Your task to perform on an android device: toggle data saver in the chrome app Image 0: 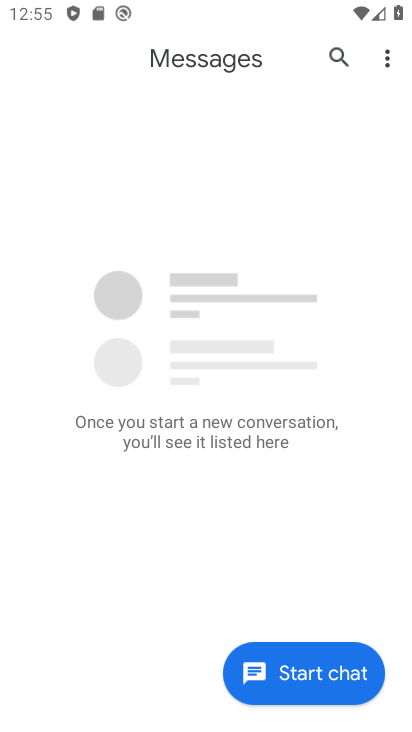
Step 0: press home button
Your task to perform on an android device: toggle data saver in the chrome app Image 1: 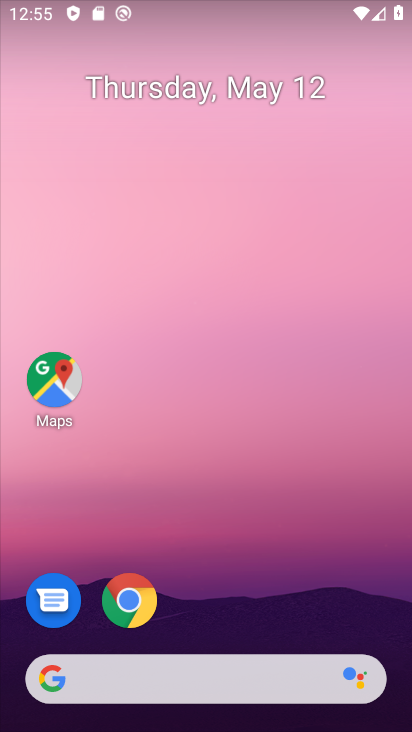
Step 1: click (134, 615)
Your task to perform on an android device: toggle data saver in the chrome app Image 2: 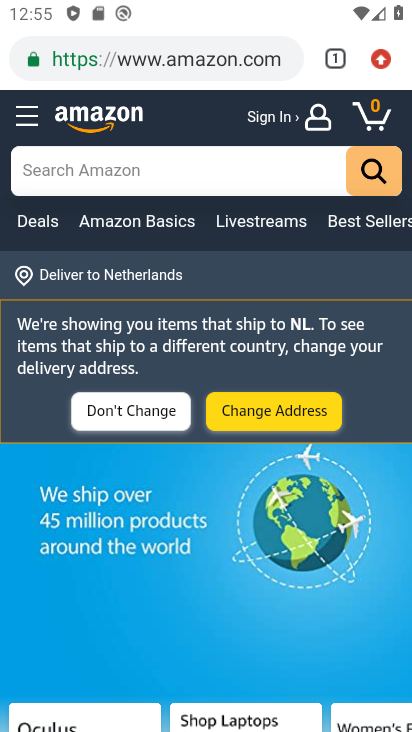
Step 2: drag from (383, 67) to (257, 638)
Your task to perform on an android device: toggle data saver in the chrome app Image 3: 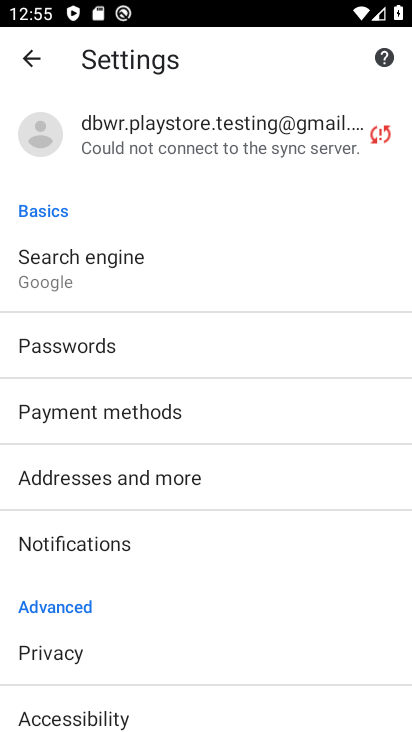
Step 3: drag from (183, 655) to (260, 344)
Your task to perform on an android device: toggle data saver in the chrome app Image 4: 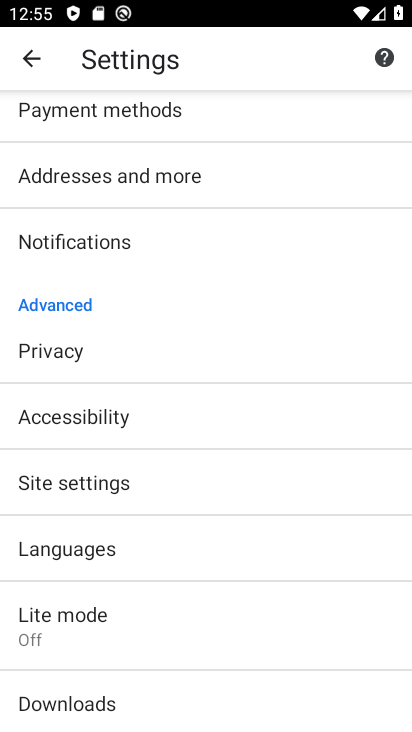
Step 4: click (142, 641)
Your task to perform on an android device: toggle data saver in the chrome app Image 5: 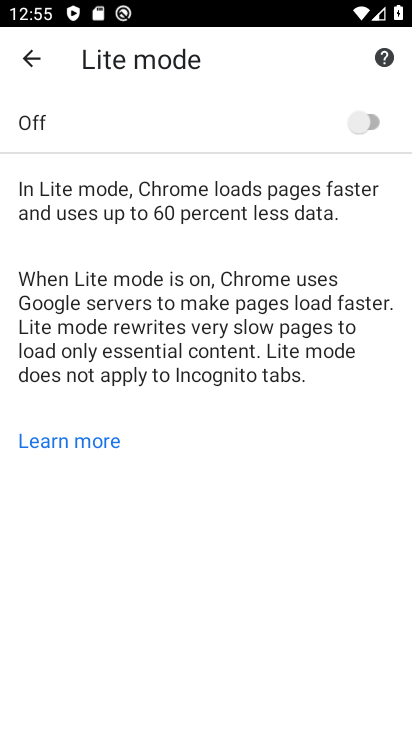
Step 5: click (381, 126)
Your task to perform on an android device: toggle data saver in the chrome app Image 6: 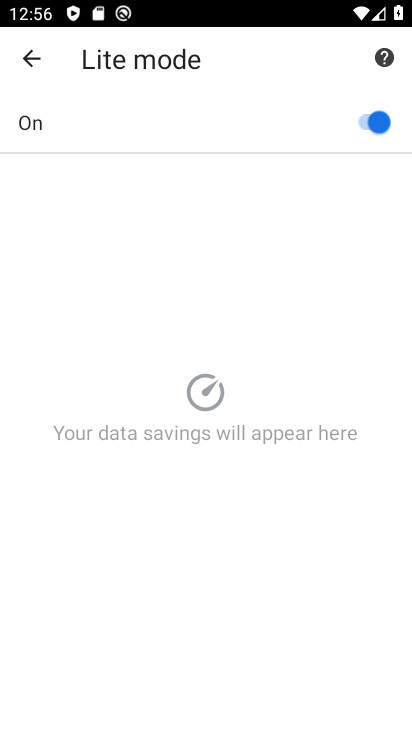
Step 6: task complete